Your task to perform on an android device: open app "Fetch Rewards" (install if not already installed) and go to login screen Image 0: 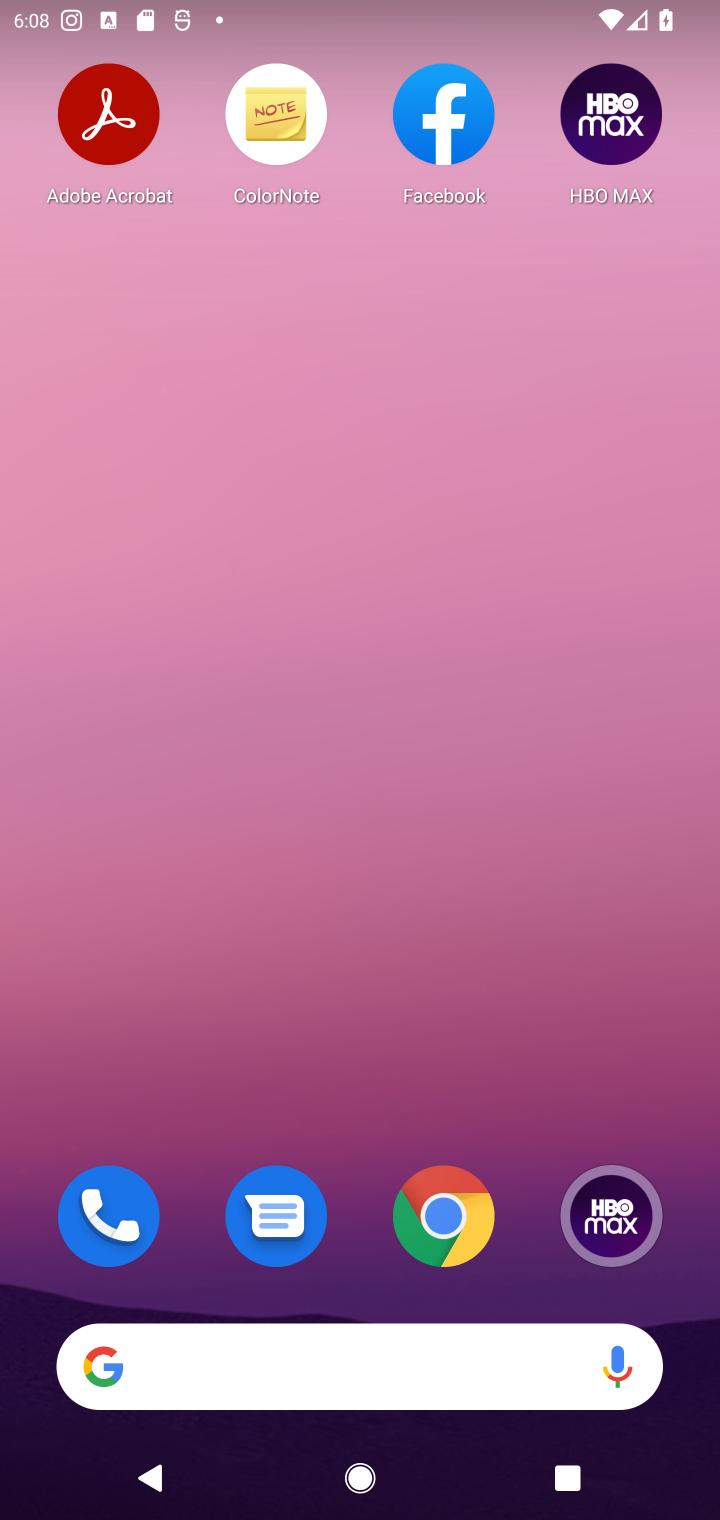
Step 0: drag from (445, 852) to (618, 105)
Your task to perform on an android device: open app "Fetch Rewards" (install if not already installed) and go to login screen Image 1: 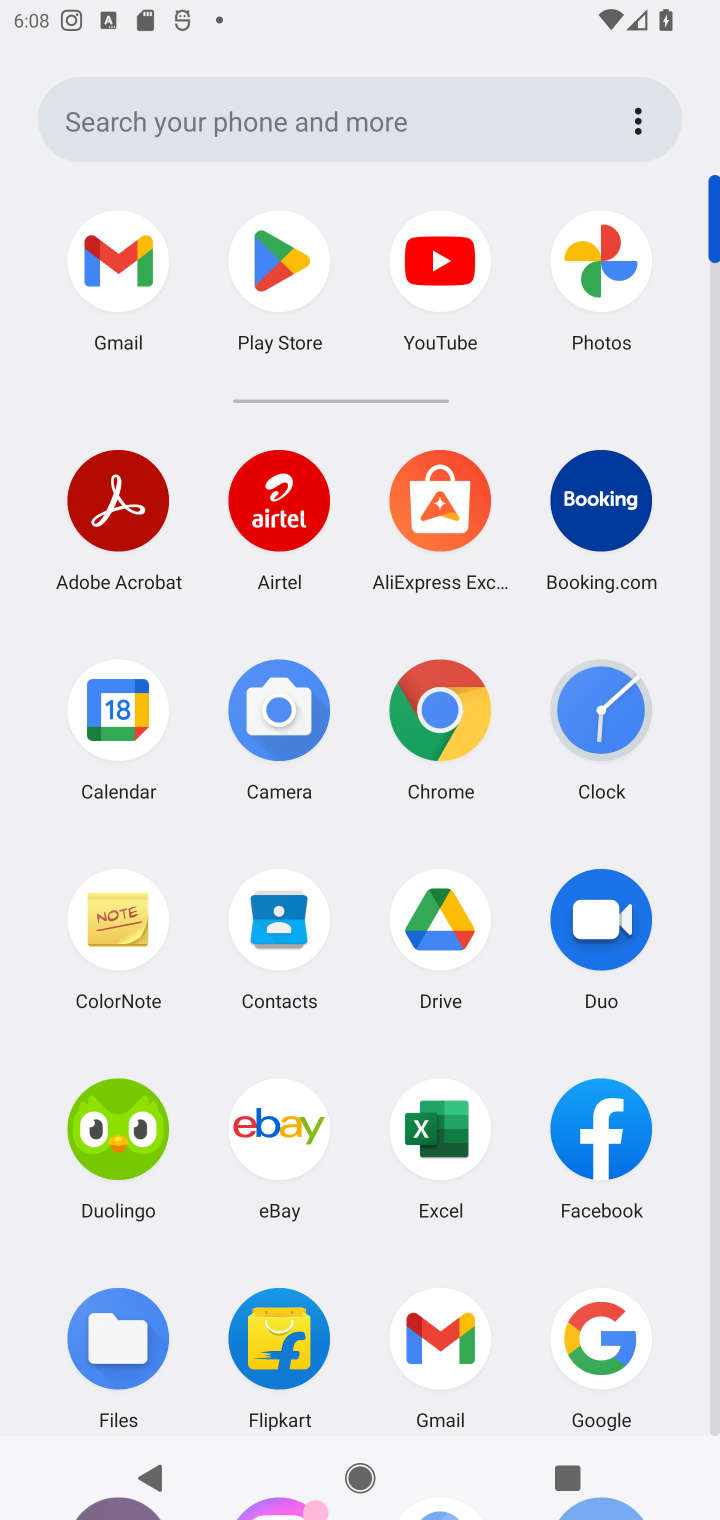
Step 1: click (251, 289)
Your task to perform on an android device: open app "Fetch Rewards" (install if not already installed) and go to login screen Image 2: 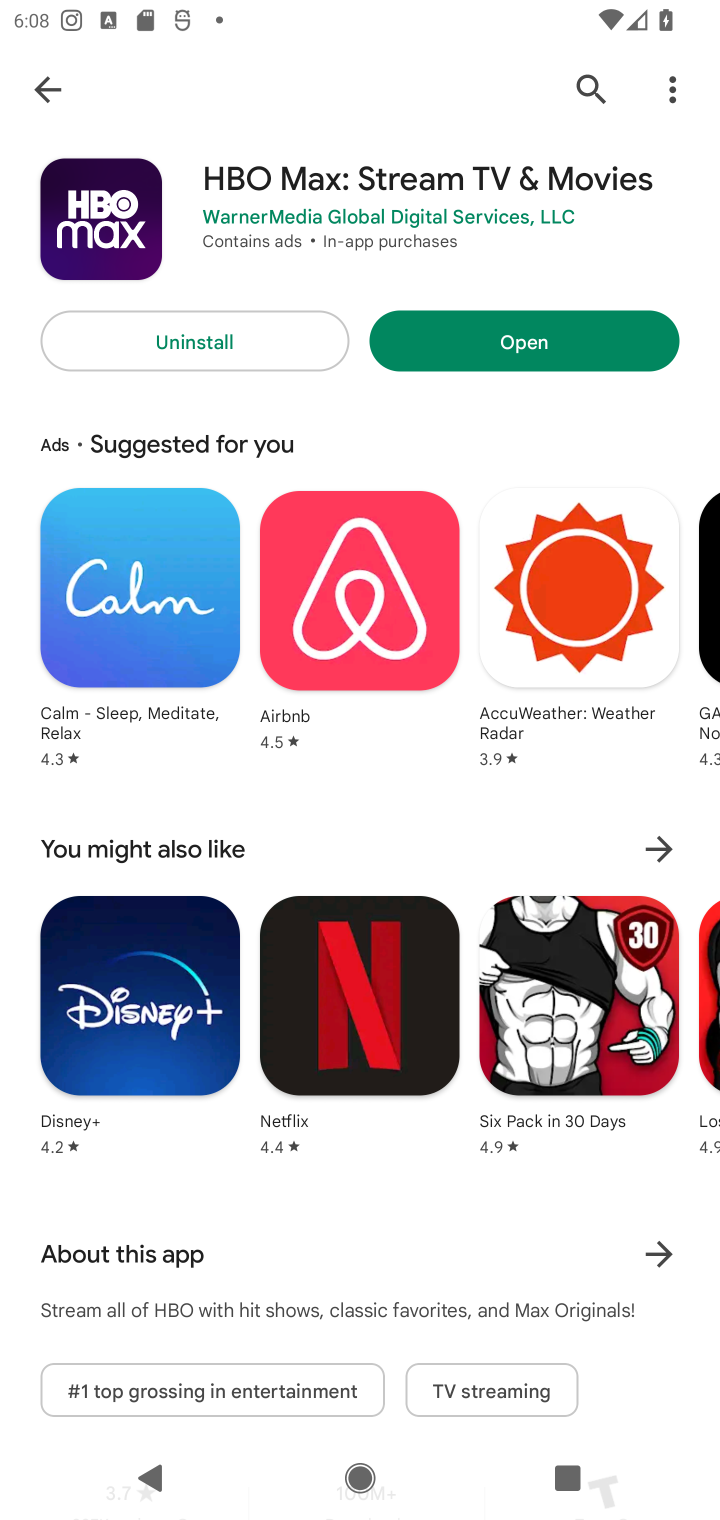
Step 2: click (597, 88)
Your task to perform on an android device: open app "Fetch Rewards" (install if not already installed) and go to login screen Image 3: 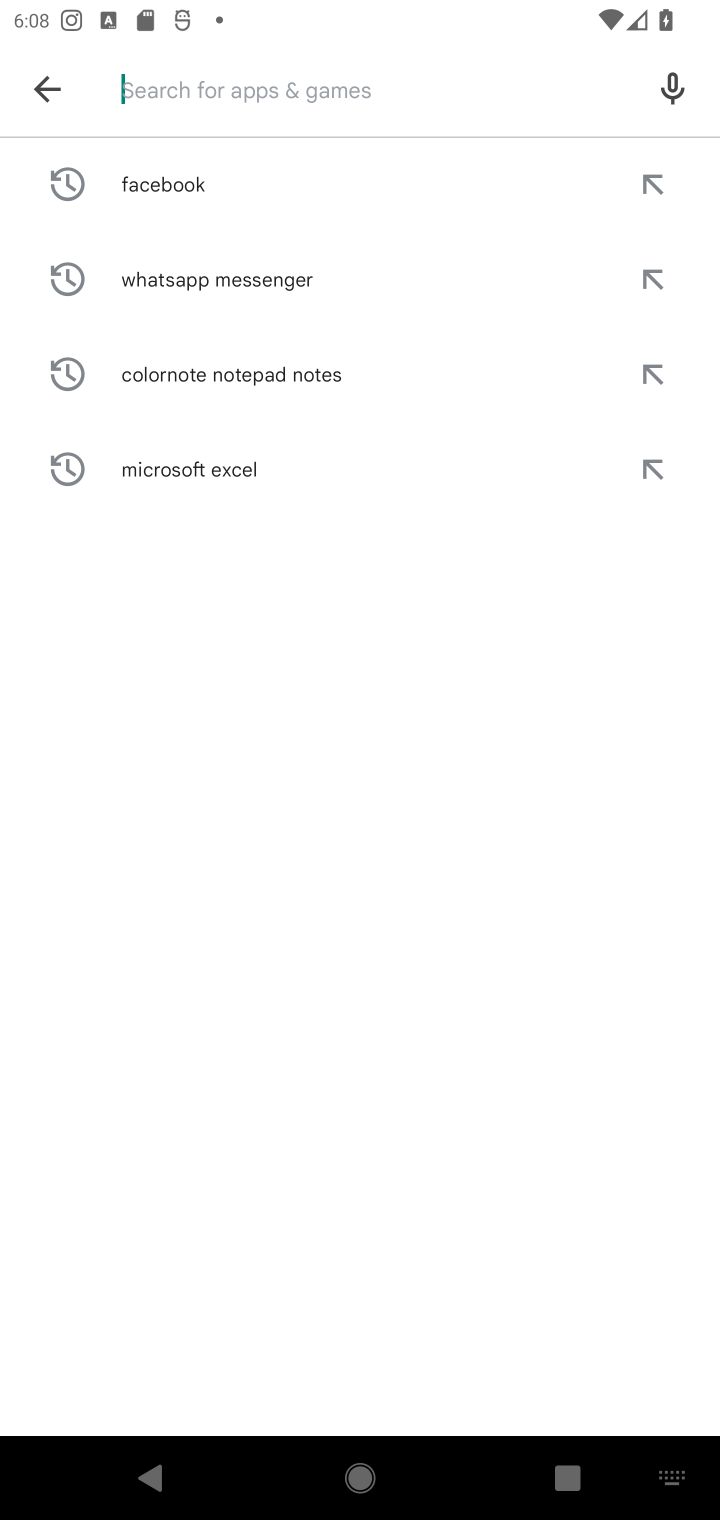
Step 3: type "Fetch Rewards"
Your task to perform on an android device: open app "Fetch Rewards" (install if not already installed) and go to login screen Image 4: 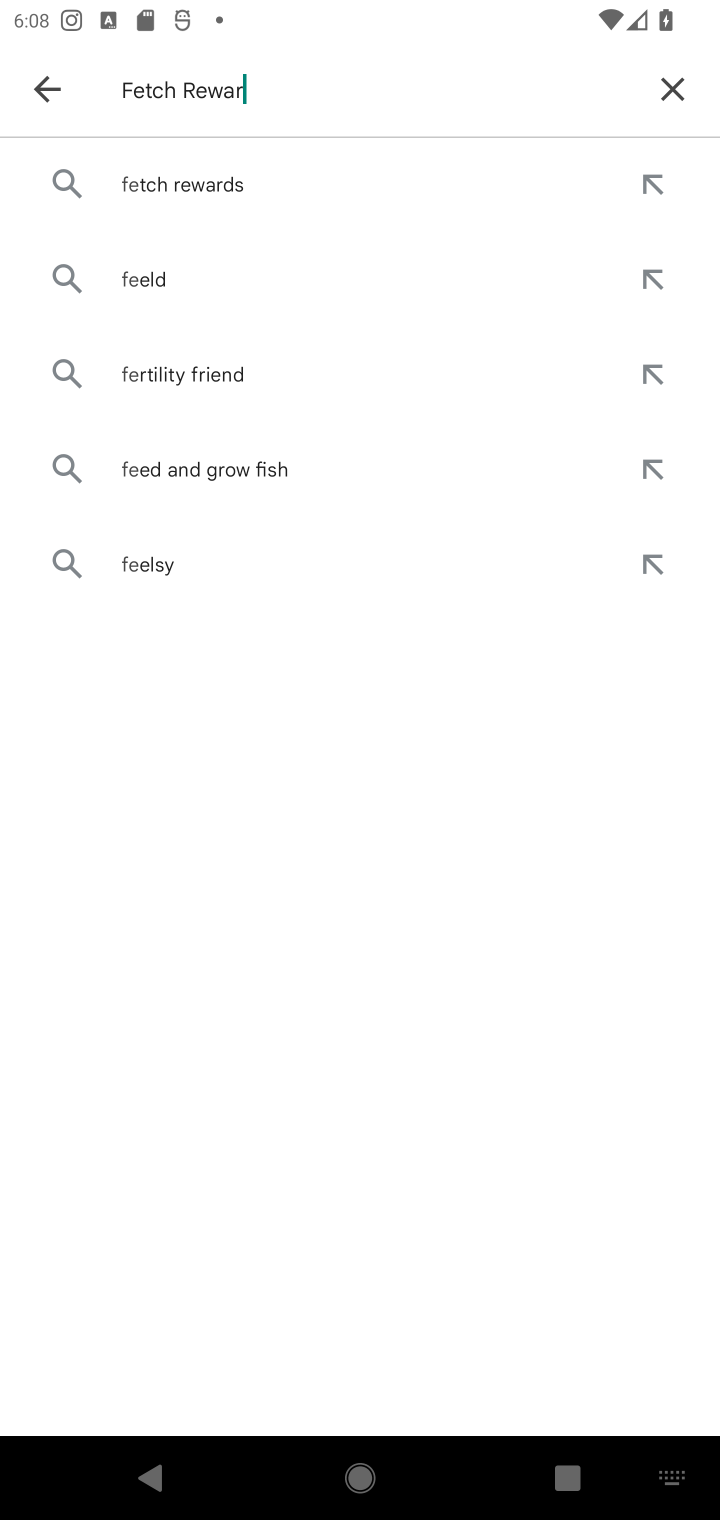
Step 4: type ""
Your task to perform on an android device: open app "Fetch Rewards" (install if not already installed) and go to login screen Image 5: 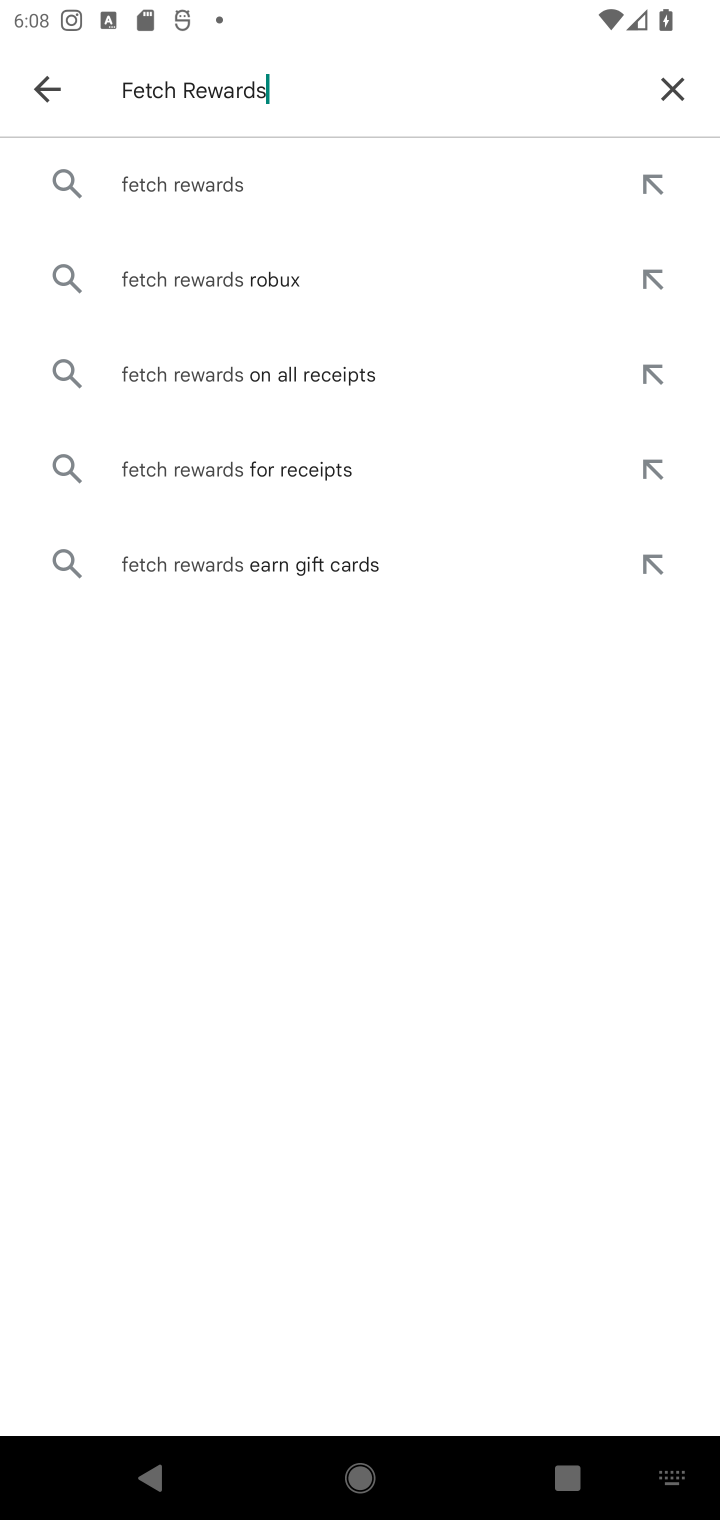
Step 5: click (313, 176)
Your task to perform on an android device: open app "Fetch Rewards" (install if not already installed) and go to login screen Image 6: 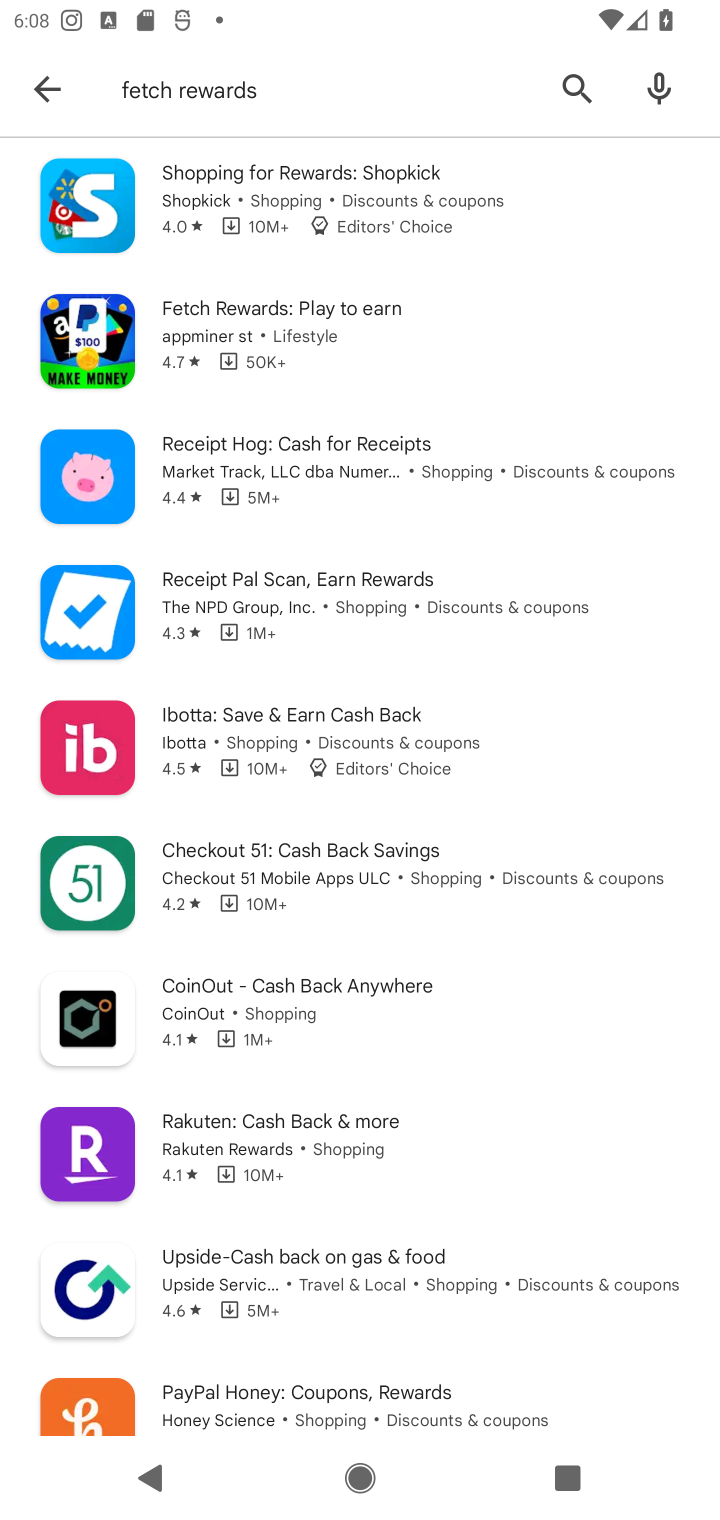
Step 6: task complete